Your task to perform on an android device: create a new album in the google photos Image 0: 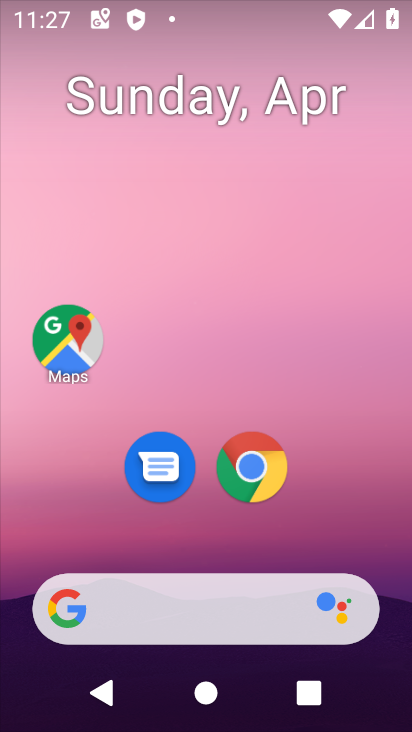
Step 0: drag from (192, 552) to (278, 202)
Your task to perform on an android device: create a new album in the google photos Image 1: 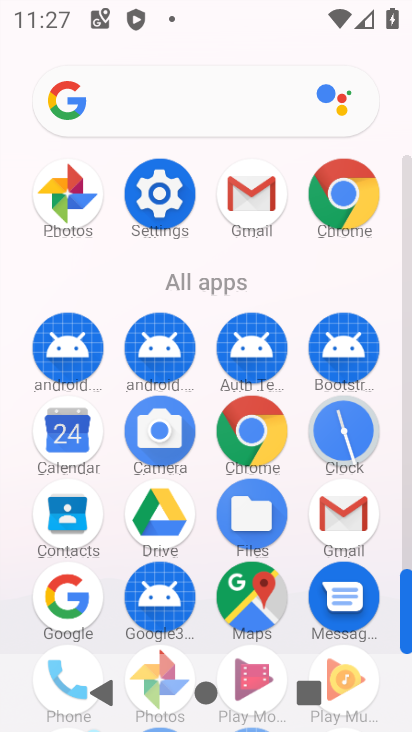
Step 1: drag from (207, 617) to (237, 141)
Your task to perform on an android device: create a new album in the google photos Image 2: 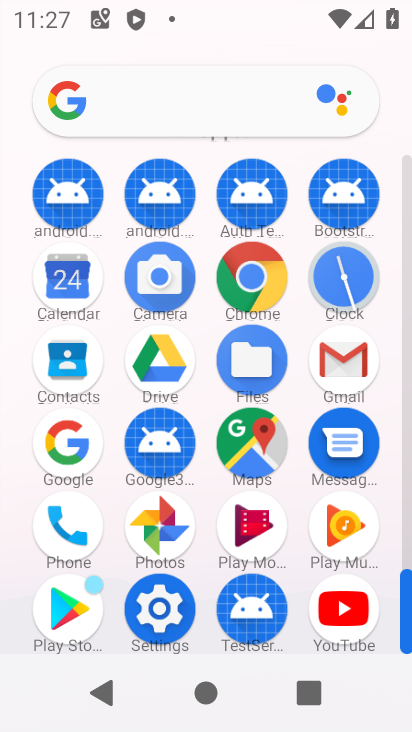
Step 2: click (166, 527)
Your task to perform on an android device: create a new album in the google photos Image 3: 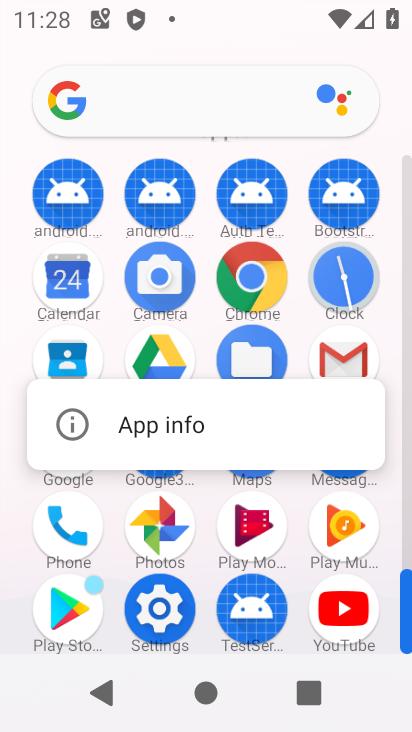
Step 3: click (126, 442)
Your task to perform on an android device: create a new album in the google photos Image 4: 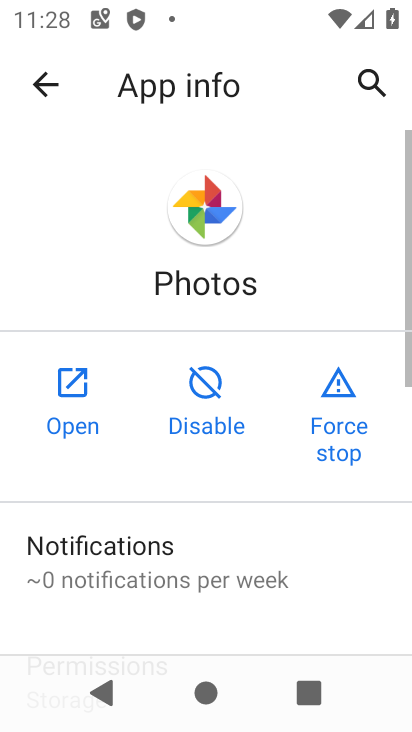
Step 4: click (60, 369)
Your task to perform on an android device: create a new album in the google photos Image 5: 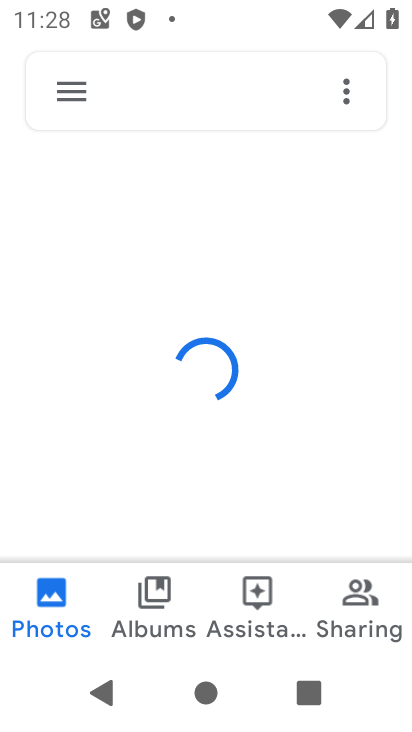
Step 5: click (164, 598)
Your task to perform on an android device: create a new album in the google photos Image 6: 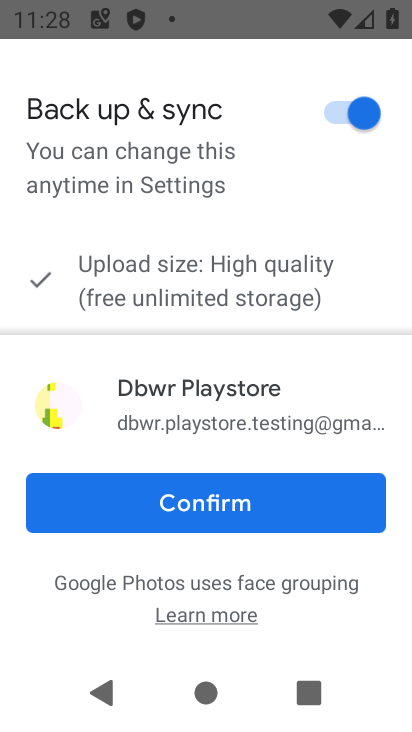
Step 6: click (199, 498)
Your task to perform on an android device: create a new album in the google photos Image 7: 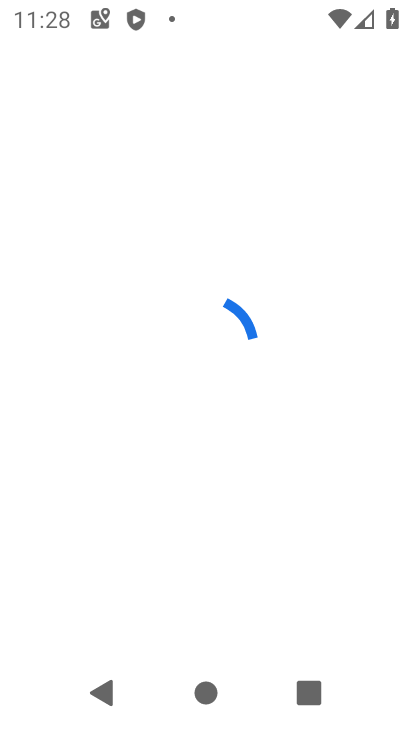
Step 7: drag from (252, 418) to (290, 285)
Your task to perform on an android device: create a new album in the google photos Image 8: 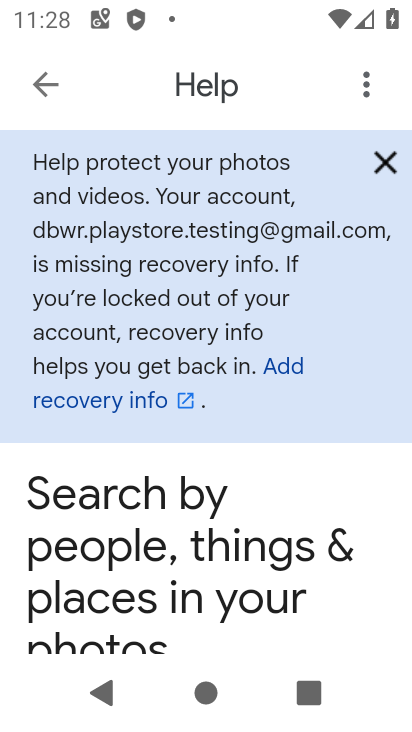
Step 8: drag from (198, 539) to (318, 194)
Your task to perform on an android device: create a new album in the google photos Image 9: 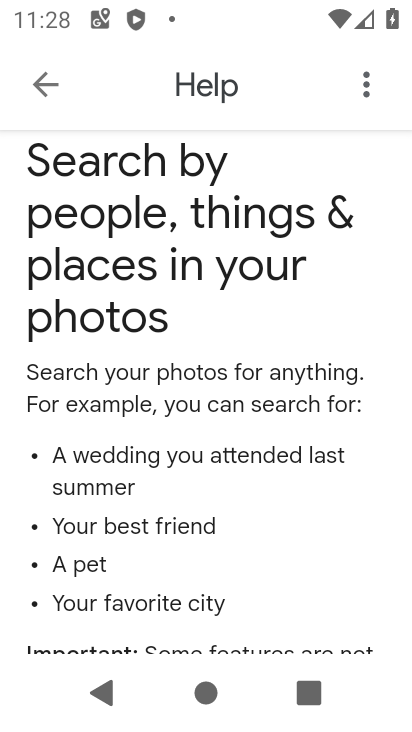
Step 9: press back button
Your task to perform on an android device: create a new album in the google photos Image 10: 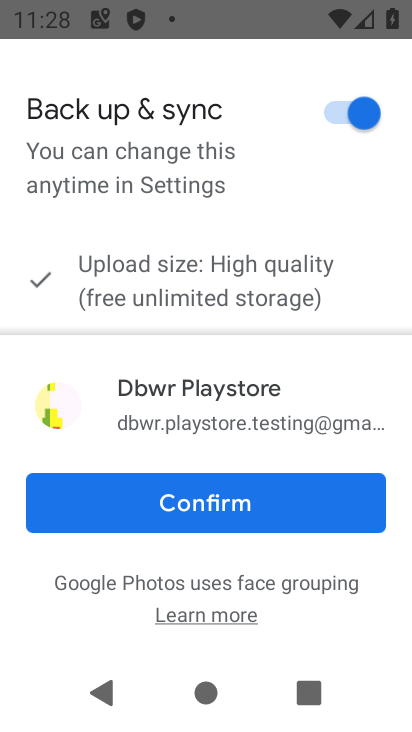
Step 10: click (252, 500)
Your task to perform on an android device: create a new album in the google photos Image 11: 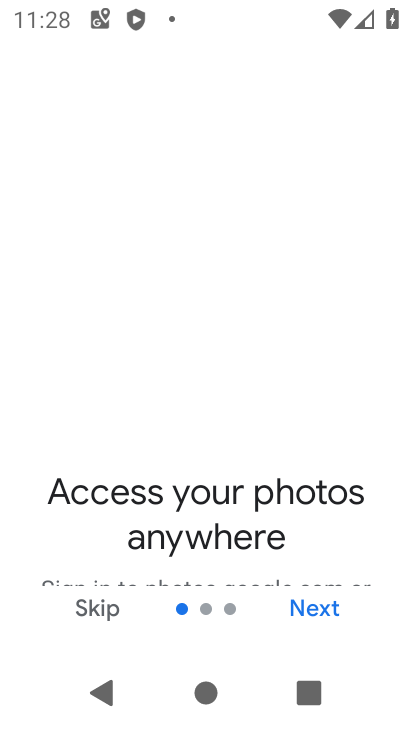
Step 11: click (99, 607)
Your task to perform on an android device: create a new album in the google photos Image 12: 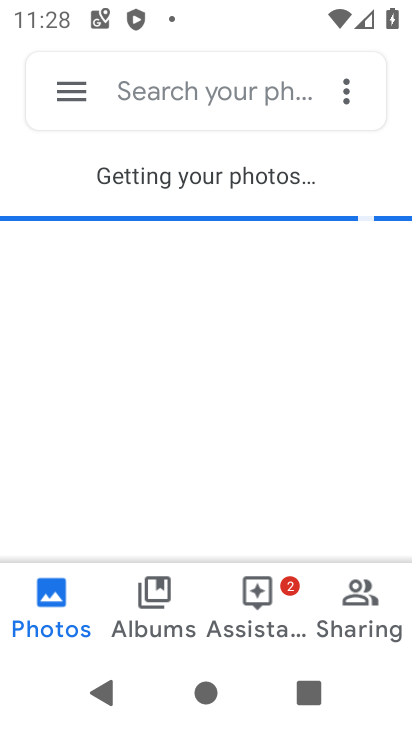
Step 12: drag from (181, 443) to (257, 55)
Your task to perform on an android device: create a new album in the google photos Image 13: 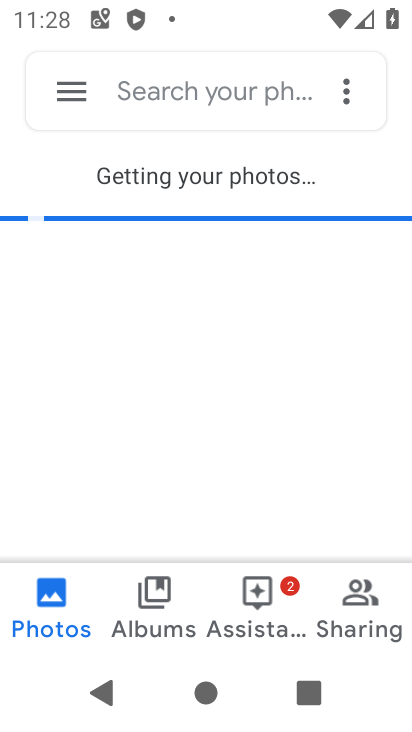
Step 13: click (158, 602)
Your task to perform on an android device: create a new album in the google photos Image 14: 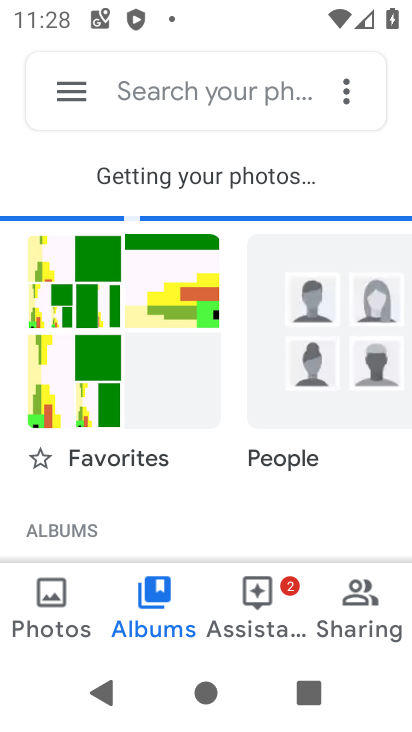
Step 14: drag from (166, 394) to (255, 106)
Your task to perform on an android device: create a new album in the google photos Image 15: 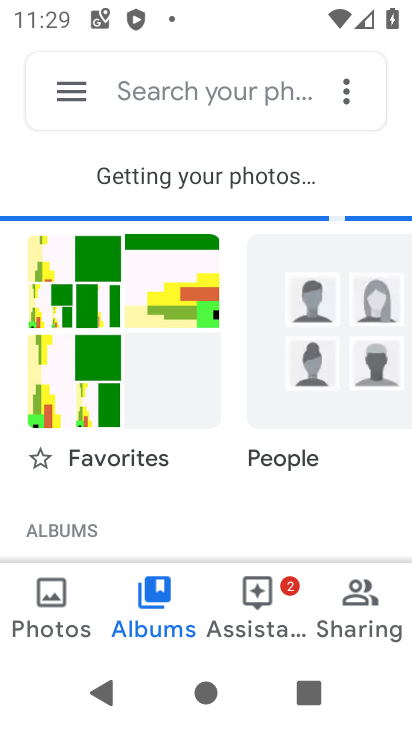
Step 15: drag from (230, 480) to (279, 107)
Your task to perform on an android device: create a new album in the google photos Image 16: 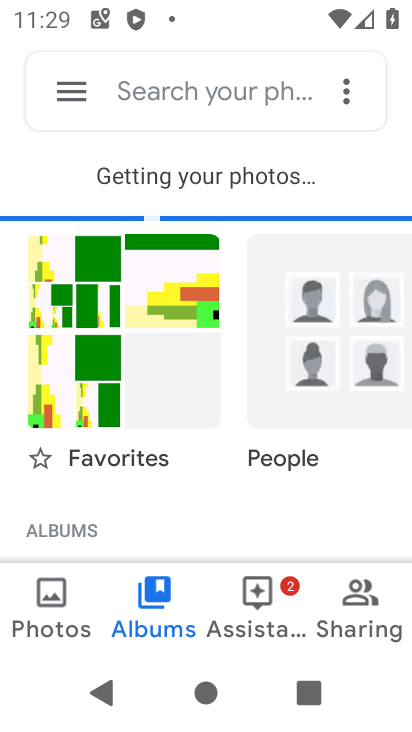
Step 16: drag from (215, 512) to (266, 119)
Your task to perform on an android device: create a new album in the google photos Image 17: 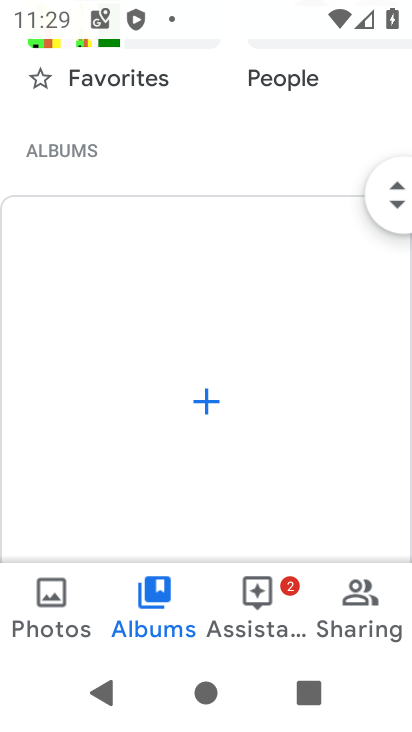
Step 17: drag from (217, 457) to (243, 327)
Your task to perform on an android device: create a new album in the google photos Image 18: 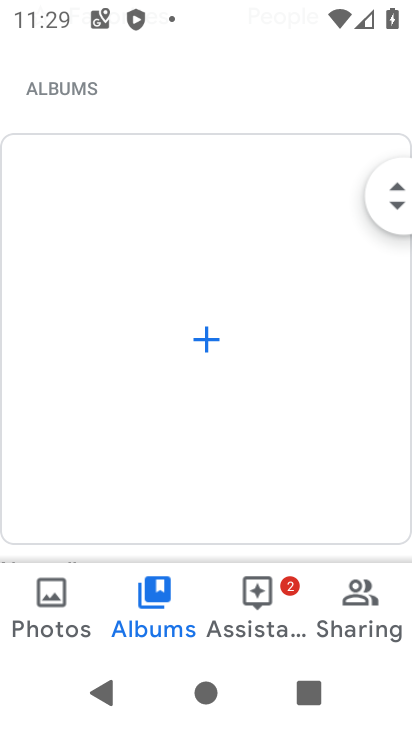
Step 18: click (198, 335)
Your task to perform on an android device: create a new album in the google photos Image 19: 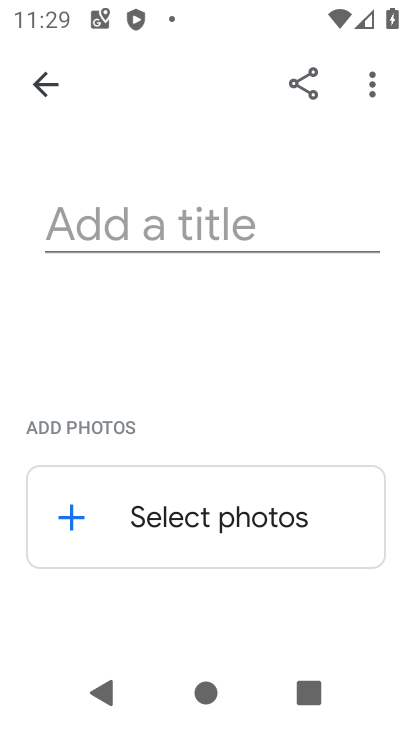
Step 19: click (101, 205)
Your task to perform on an android device: create a new album in the google photos Image 20: 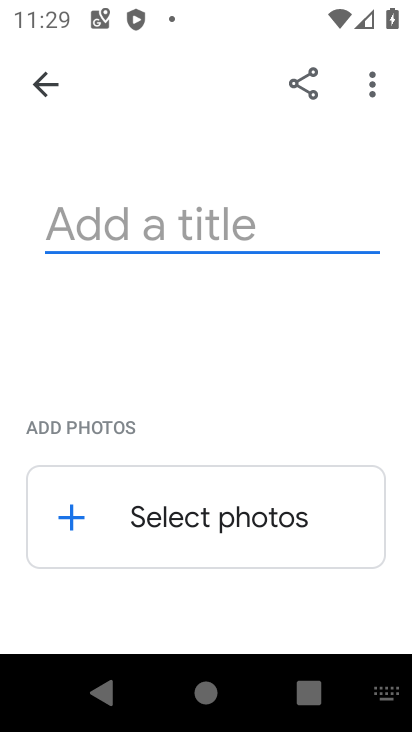
Step 20: type "nnb"
Your task to perform on an android device: create a new album in the google photos Image 21: 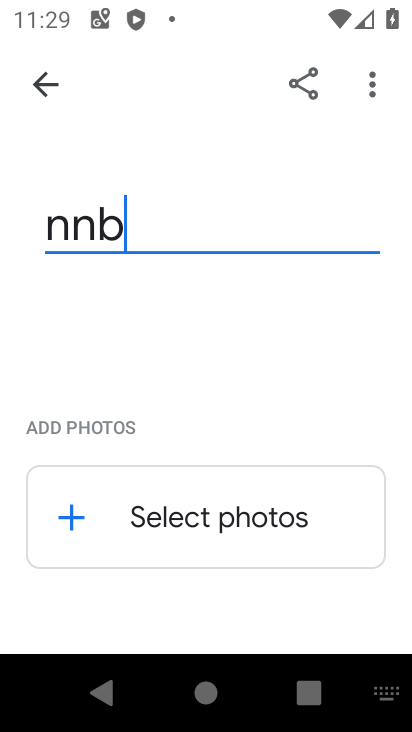
Step 21: click (72, 514)
Your task to perform on an android device: create a new album in the google photos Image 22: 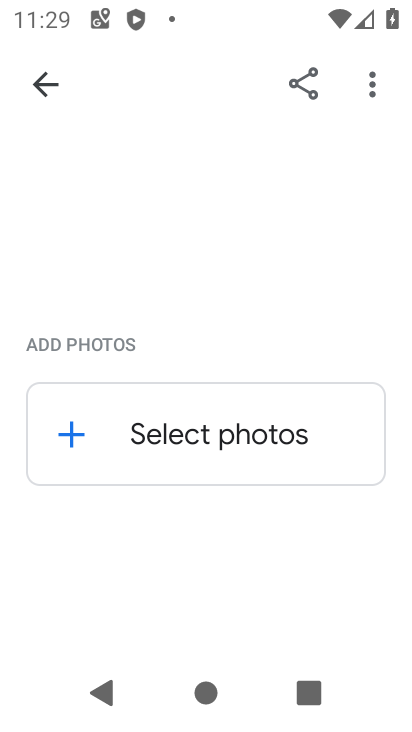
Step 22: click (92, 434)
Your task to perform on an android device: create a new album in the google photos Image 23: 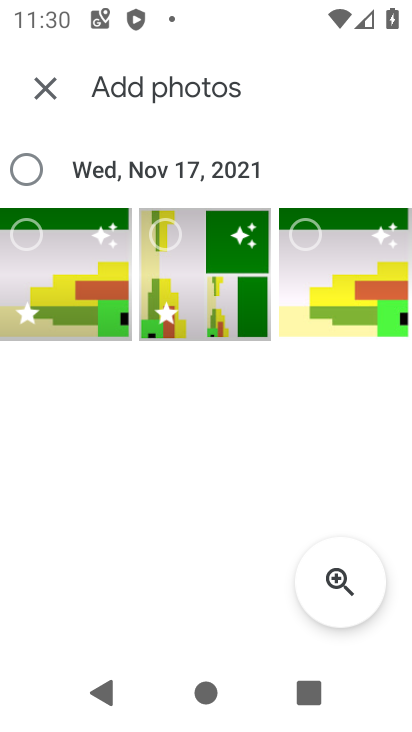
Step 23: click (66, 434)
Your task to perform on an android device: create a new album in the google photos Image 24: 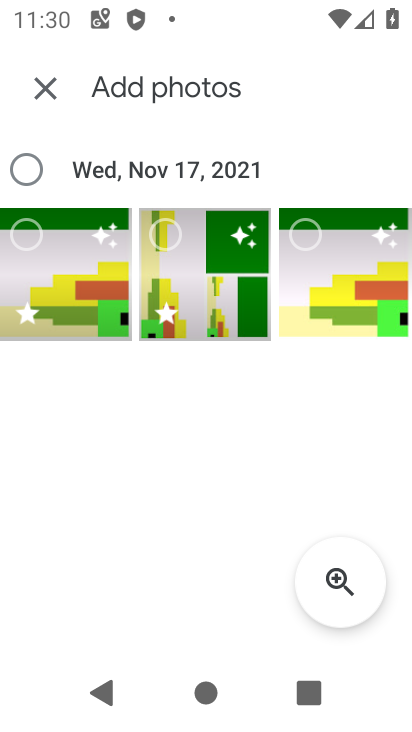
Step 24: click (152, 311)
Your task to perform on an android device: create a new album in the google photos Image 25: 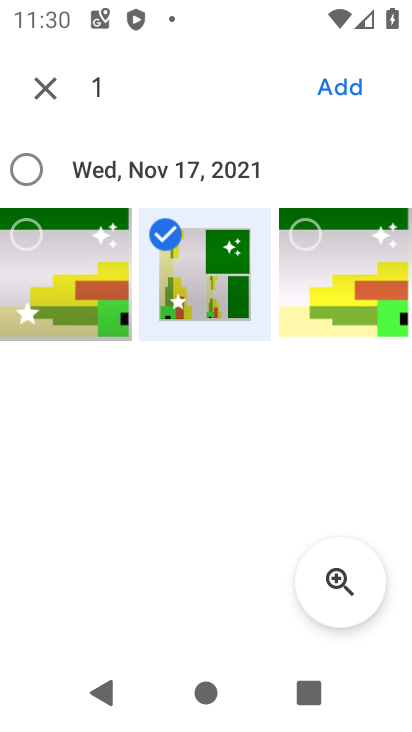
Step 25: click (354, 84)
Your task to perform on an android device: create a new album in the google photos Image 26: 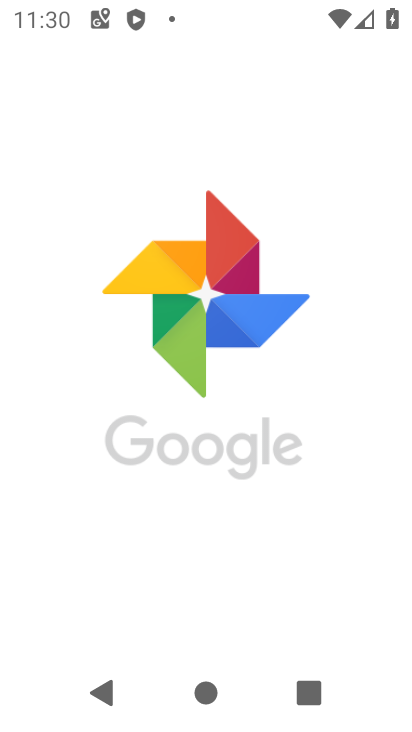
Step 26: task complete